Your task to perform on an android device: change the clock display to analog Image 0: 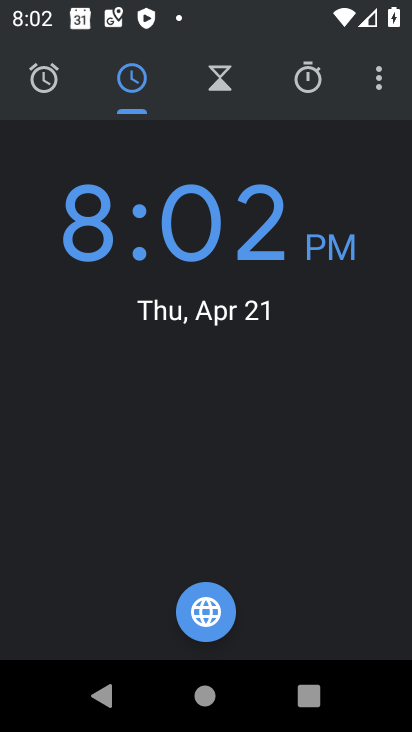
Step 0: drag from (369, 72) to (340, 136)
Your task to perform on an android device: change the clock display to analog Image 1: 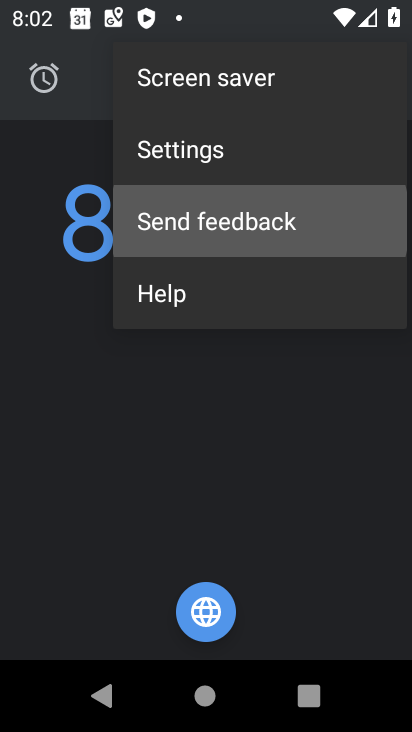
Step 1: click (378, 89)
Your task to perform on an android device: change the clock display to analog Image 2: 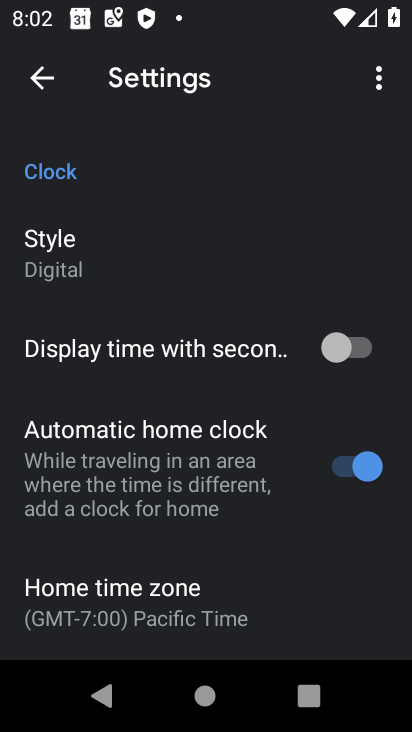
Step 2: click (210, 130)
Your task to perform on an android device: change the clock display to analog Image 3: 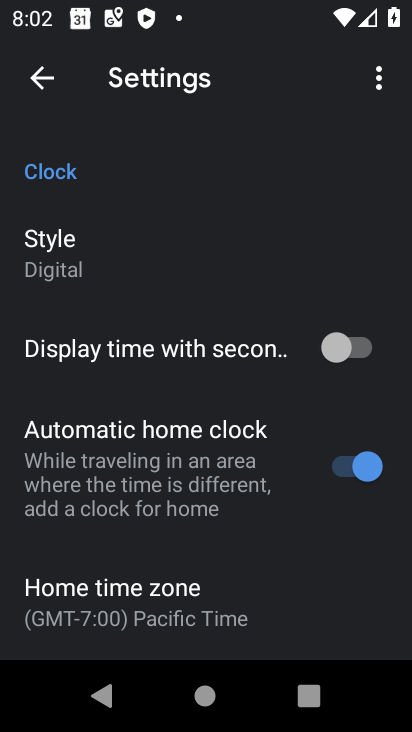
Step 3: click (104, 243)
Your task to perform on an android device: change the clock display to analog Image 4: 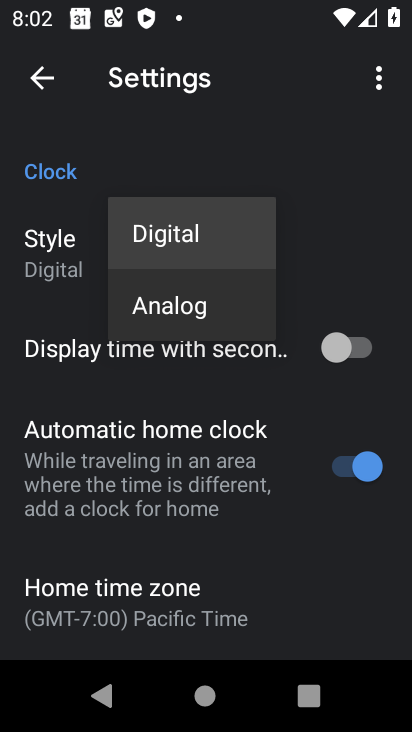
Step 4: click (165, 306)
Your task to perform on an android device: change the clock display to analog Image 5: 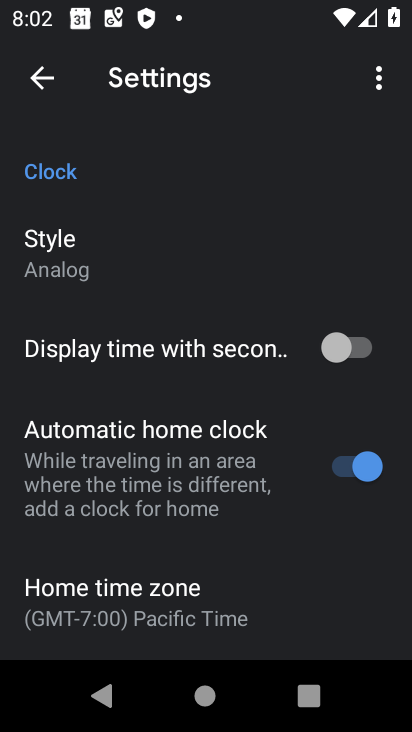
Step 5: task complete